Your task to perform on an android device: change timer sound Image 0: 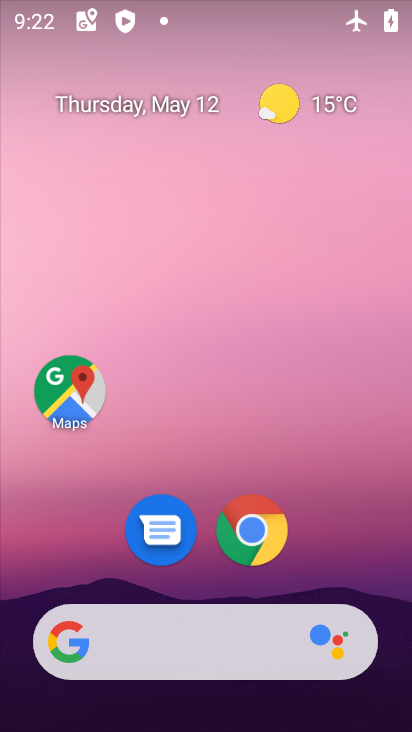
Step 0: drag from (239, 713) to (256, 5)
Your task to perform on an android device: change timer sound Image 1: 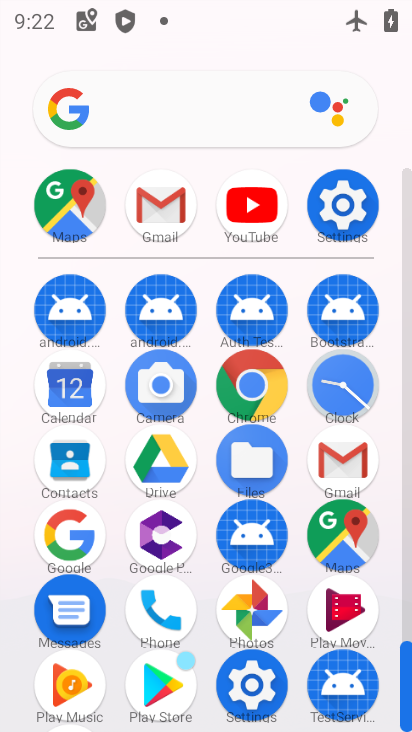
Step 1: click (334, 375)
Your task to perform on an android device: change timer sound Image 2: 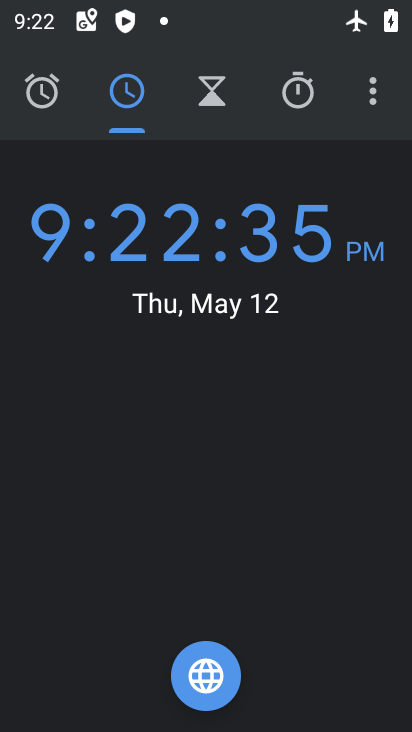
Step 2: click (375, 78)
Your task to perform on an android device: change timer sound Image 3: 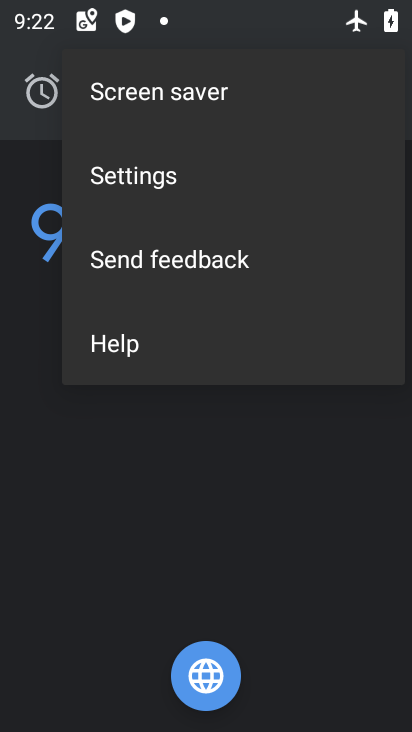
Step 3: click (136, 181)
Your task to perform on an android device: change timer sound Image 4: 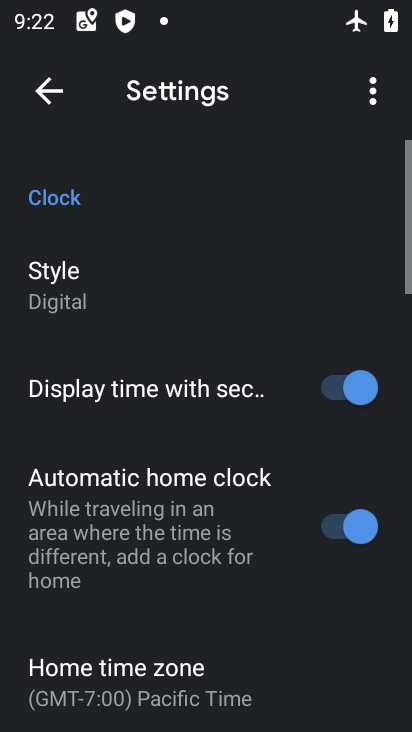
Step 4: drag from (240, 661) to (221, 215)
Your task to perform on an android device: change timer sound Image 5: 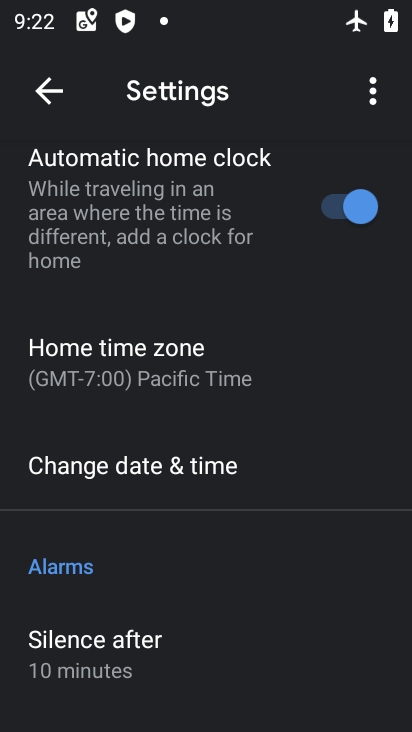
Step 5: drag from (257, 682) to (298, 243)
Your task to perform on an android device: change timer sound Image 6: 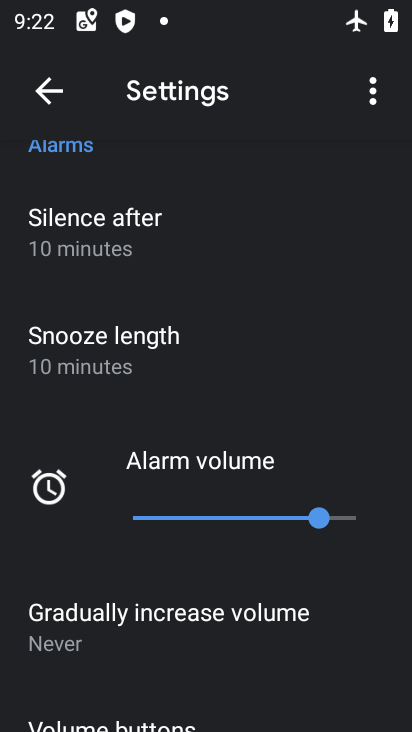
Step 6: drag from (155, 650) to (155, 139)
Your task to perform on an android device: change timer sound Image 7: 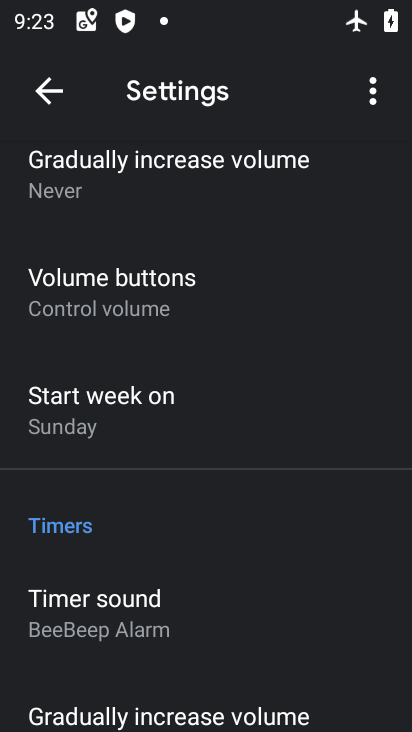
Step 7: click (93, 603)
Your task to perform on an android device: change timer sound Image 8: 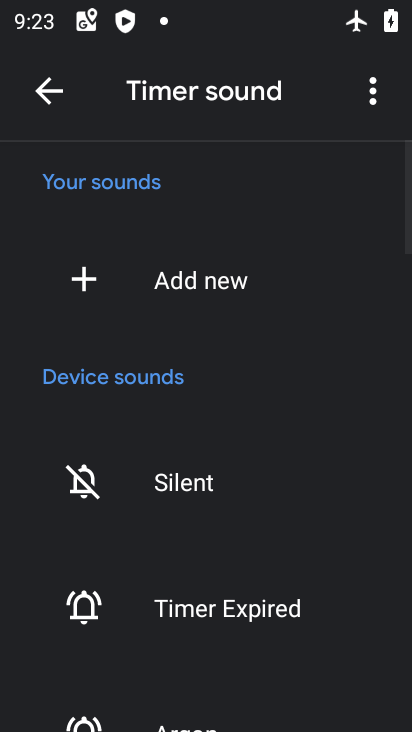
Step 8: drag from (195, 671) to (157, 106)
Your task to perform on an android device: change timer sound Image 9: 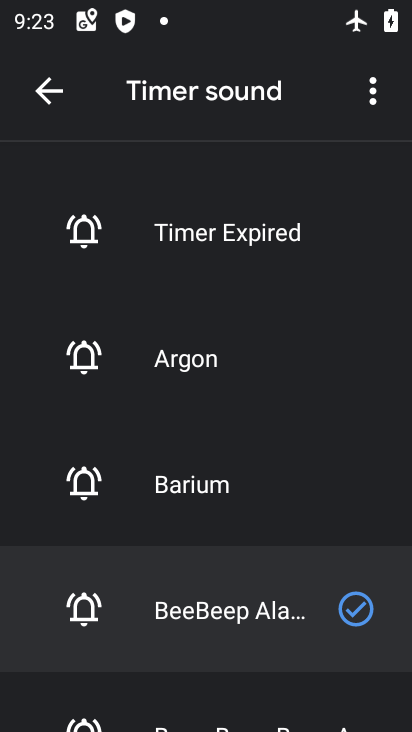
Step 9: click (159, 474)
Your task to perform on an android device: change timer sound Image 10: 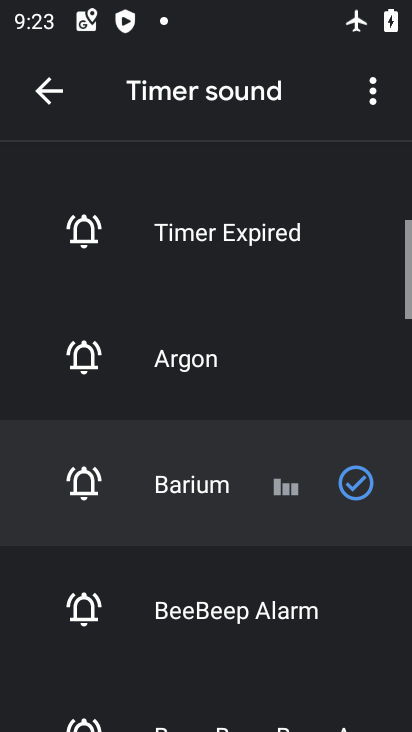
Step 10: task complete